Your task to perform on an android device: Open Google Image 0: 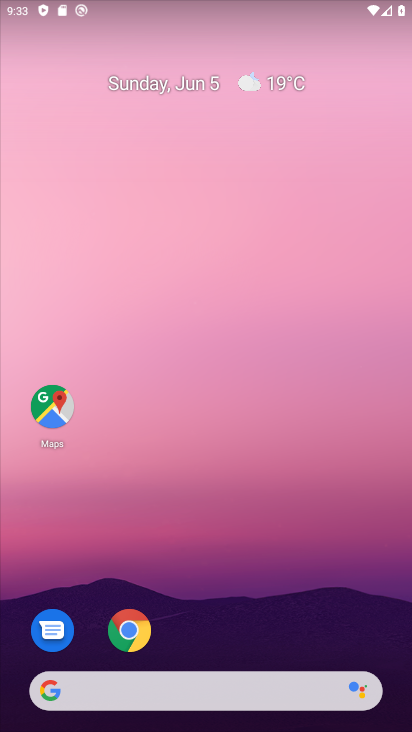
Step 0: drag from (250, 656) to (210, 188)
Your task to perform on an android device: Open Google Image 1: 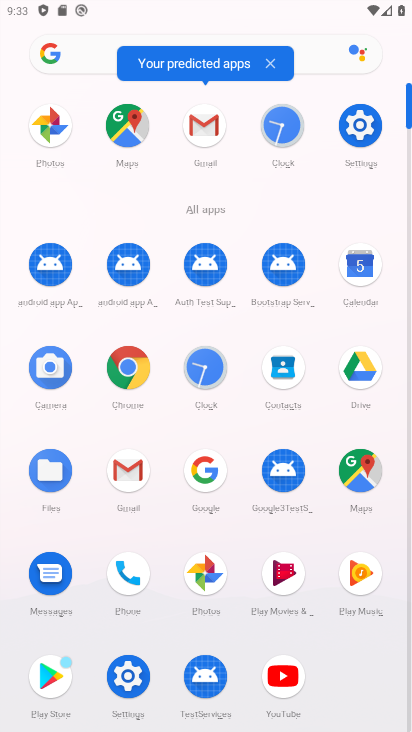
Step 1: click (203, 466)
Your task to perform on an android device: Open Google Image 2: 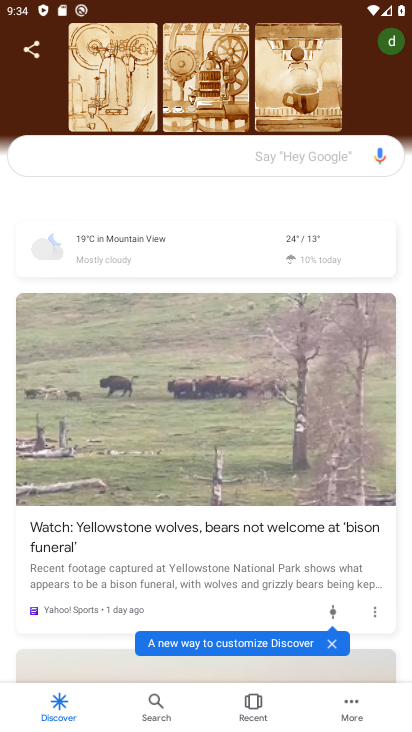
Step 2: task complete